Your task to perform on an android device: toggle airplane mode Image 0: 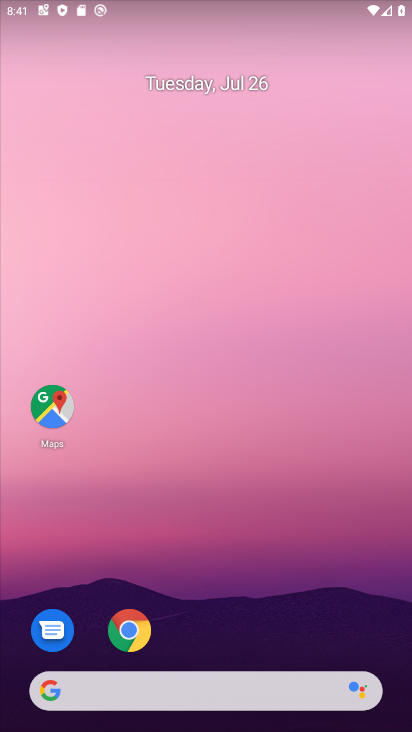
Step 0: drag from (218, 633) to (177, 16)
Your task to perform on an android device: toggle airplane mode Image 1: 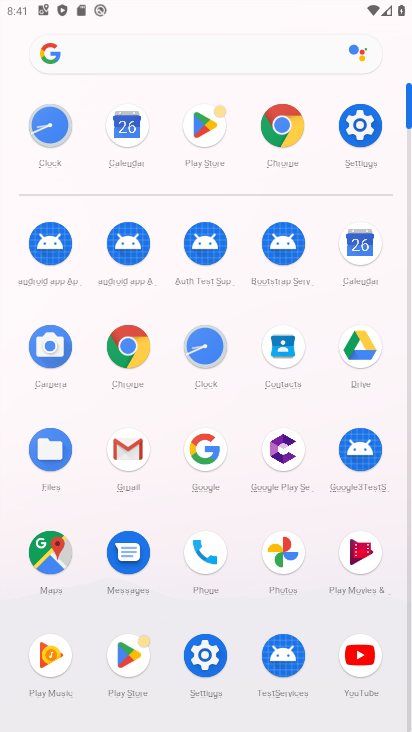
Step 1: click (358, 152)
Your task to perform on an android device: toggle airplane mode Image 2: 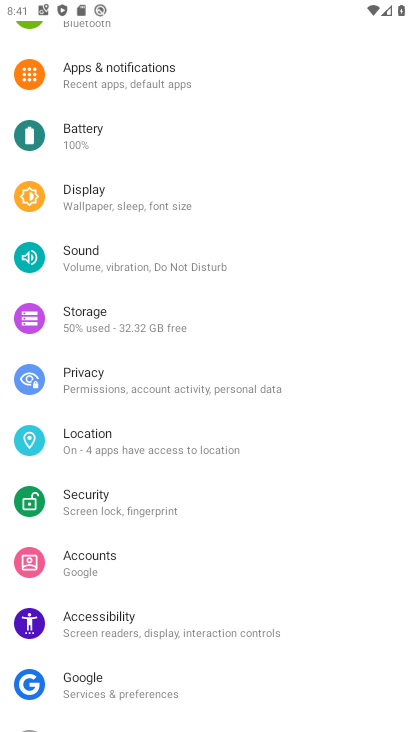
Step 2: drag from (209, 102) to (281, 412)
Your task to perform on an android device: toggle airplane mode Image 3: 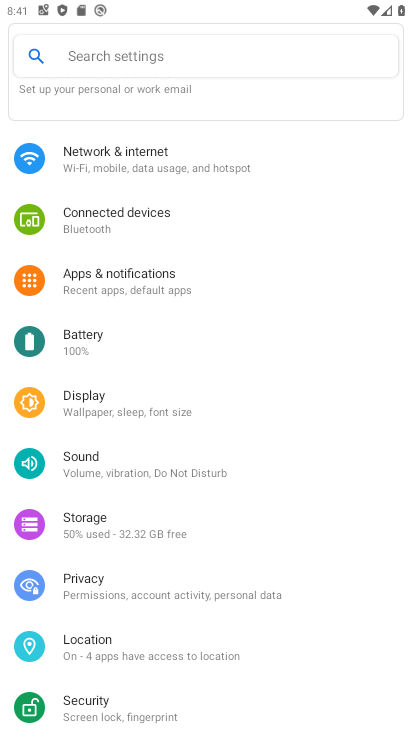
Step 3: click (245, 173)
Your task to perform on an android device: toggle airplane mode Image 4: 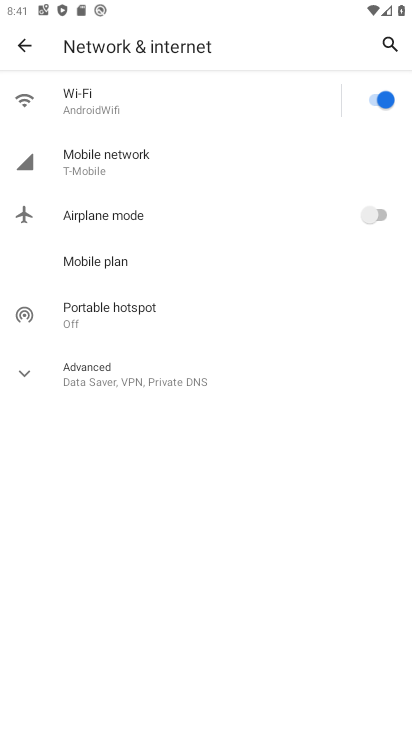
Step 4: click (361, 204)
Your task to perform on an android device: toggle airplane mode Image 5: 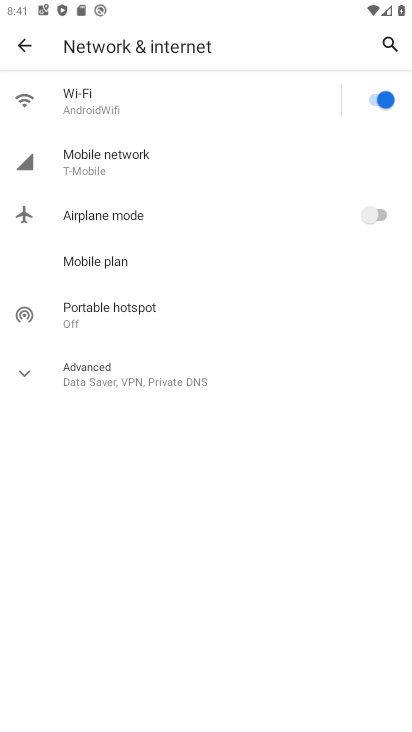
Step 5: click (361, 204)
Your task to perform on an android device: toggle airplane mode Image 6: 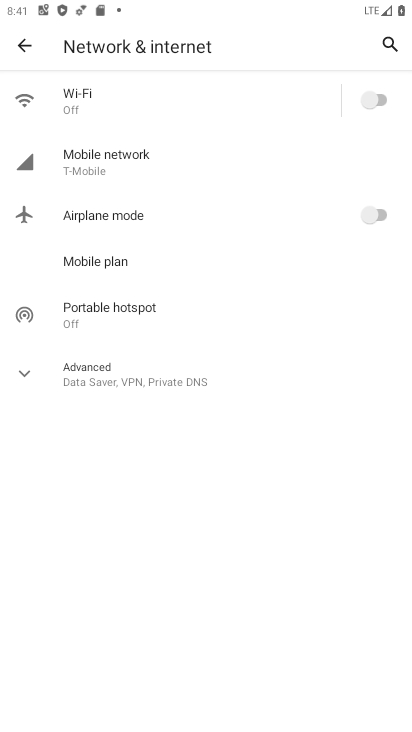
Step 6: click (378, 217)
Your task to perform on an android device: toggle airplane mode Image 7: 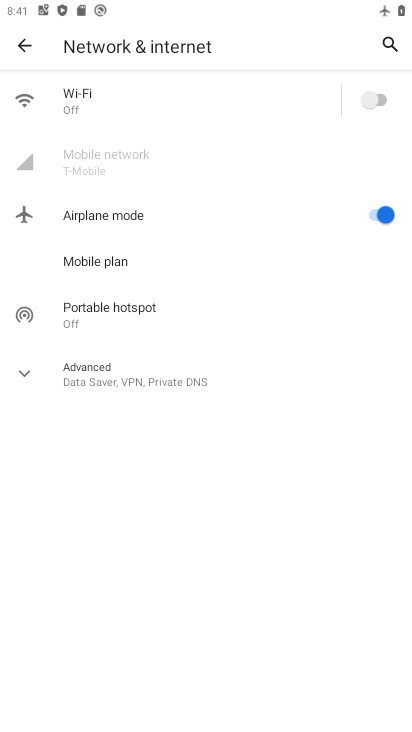
Step 7: task complete